Your task to perform on an android device: Clear the cart on target. Image 0: 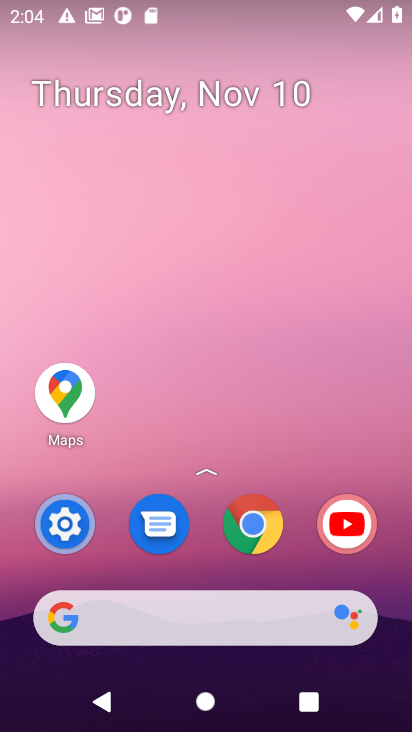
Step 0: click (260, 525)
Your task to perform on an android device: Clear the cart on target. Image 1: 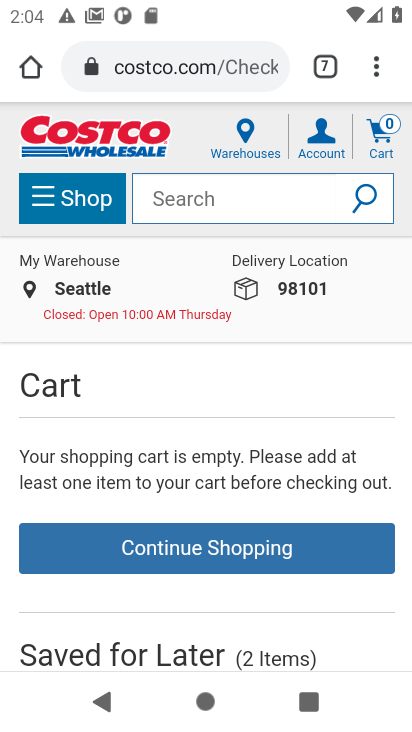
Step 1: click (325, 66)
Your task to perform on an android device: Clear the cart on target. Image 2: 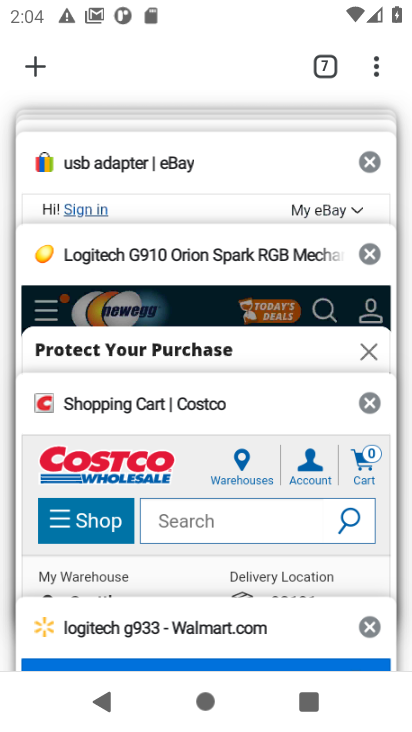
Step 2: drag from (208, 146) to (149, 303)
Your task to perform on an android device: Clear the cart on target. Image 3: 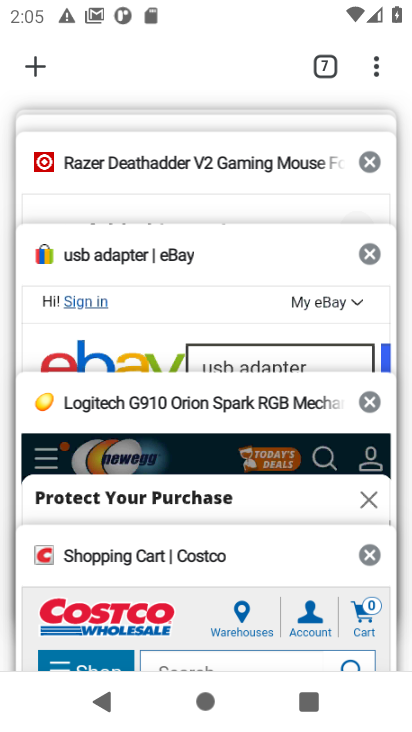
Step 3: click (186, 162)
Your task to perform on an android device: Clear the cart on target. Image 4: 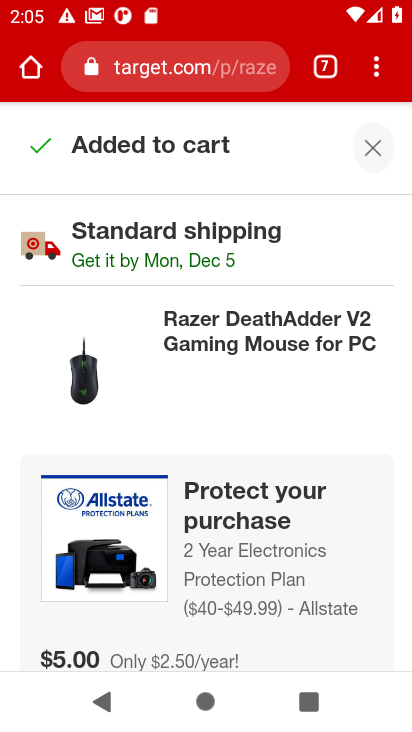
Step 4: click (363, 152)
Your task to perform on an android device: Clear the cart on target. Image 5: 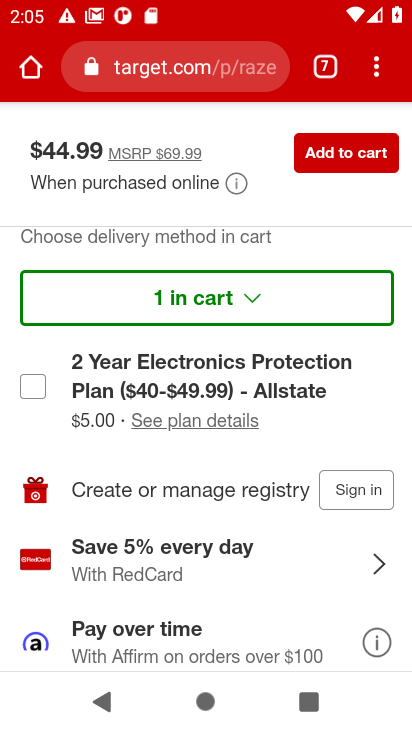
Step 5: drag from (361, 125) to (342, 308)
Your task to perform on an android device: Clear the cart on target. Image 6: 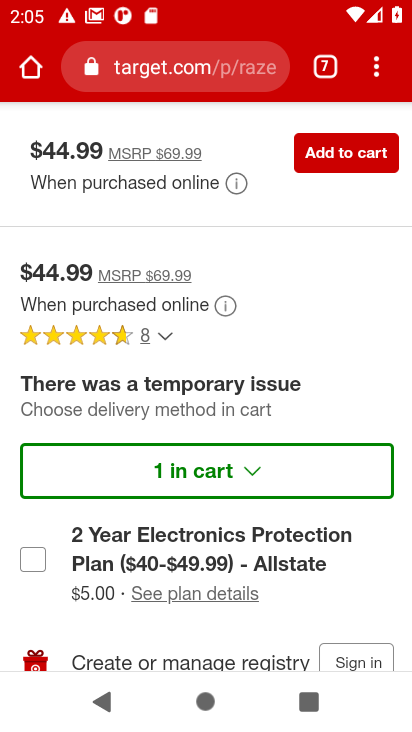
Step 6: drag from (271, 231) to (279, 449)
Your task to perform on an android device: Clear the cart on target. Image 7: 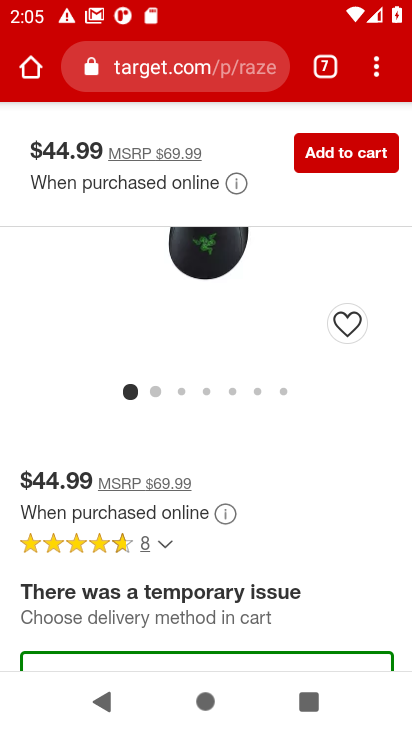
Step 7: drag from (291, 239) to (279, 528)
Your task to perform on an android device: Clear the cart on target. Image 8: 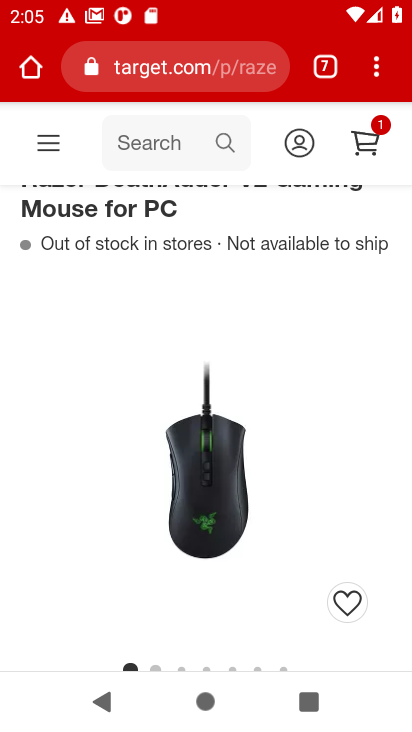
Step 8: click (373, 129)
Your task to perform on an android device: Clear the cart on target. Image 9: 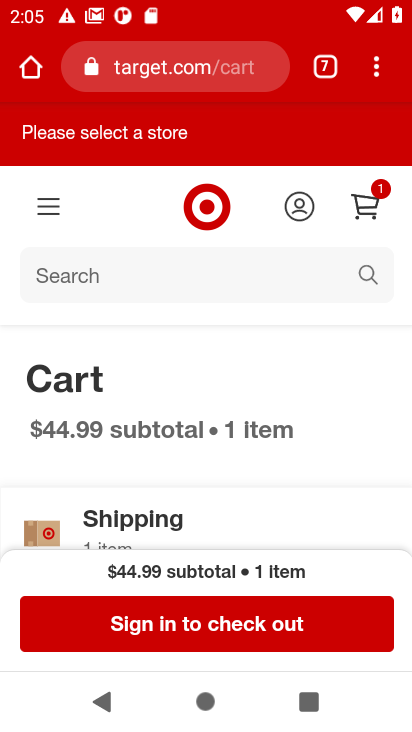
Step 9: drag from (243, 531) to (245, 299)
Your task to perform on an android device: Clear the cart on target. Image 10: 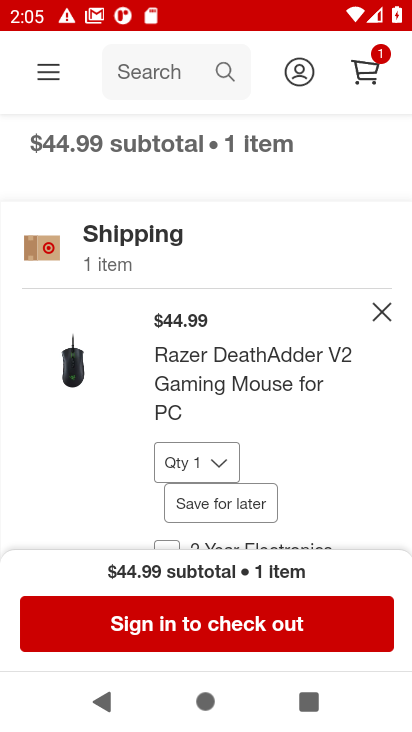
Step 10: click (379, 316)
Your task to perform on an android device: Clear the cart on target. Image 11: 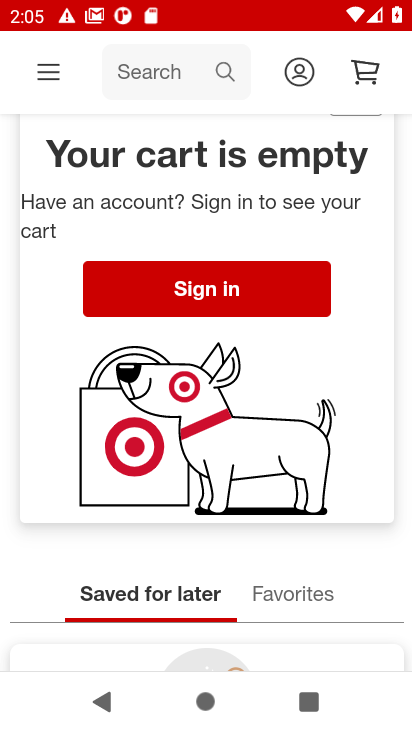
Step 11: task complete